Your task to perform on an android device: see sites visited before in the chrome app Image 0: 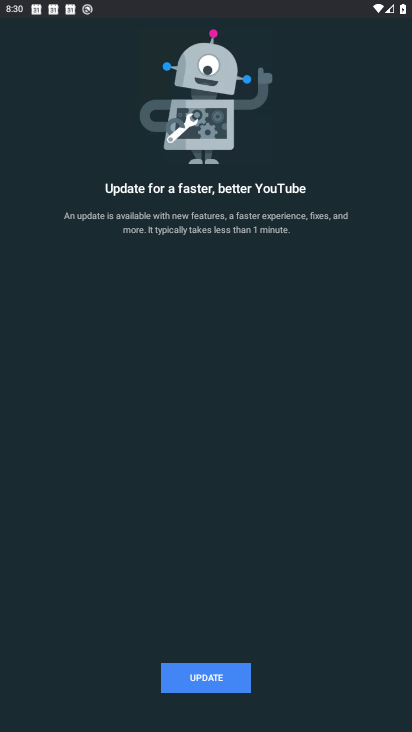
Step 0: press home button
Your task to perform on an android device: see sites visited before in the chrome app Image 1: 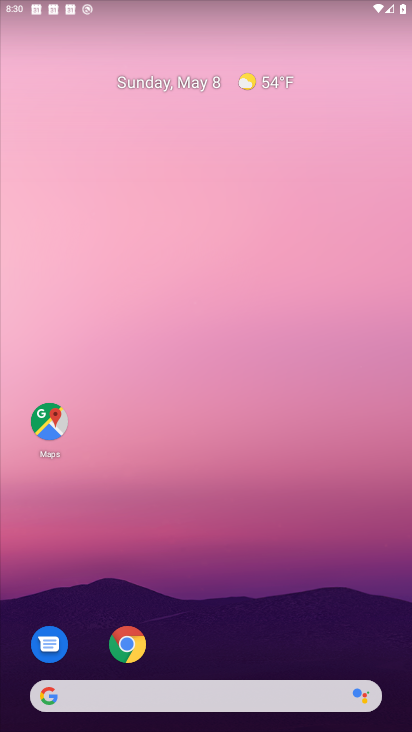
Step 1: click (136, 654)
Your task to perform on an android device: see sites visited before in the chrome app Image 2: 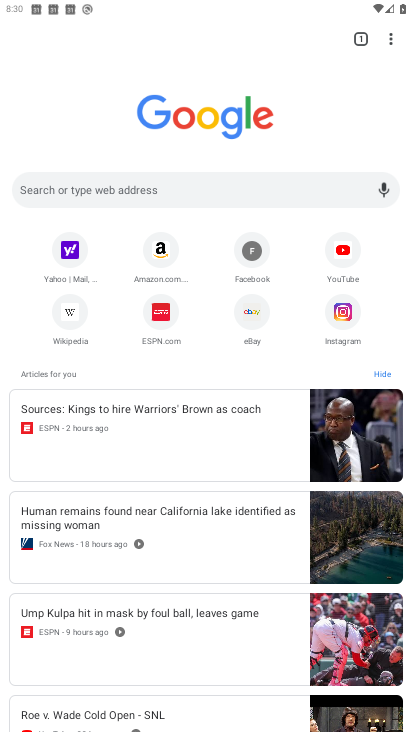
Step 2: task complete